Your task to perform on an android device: toggle javascript in the chrome app Image 0: 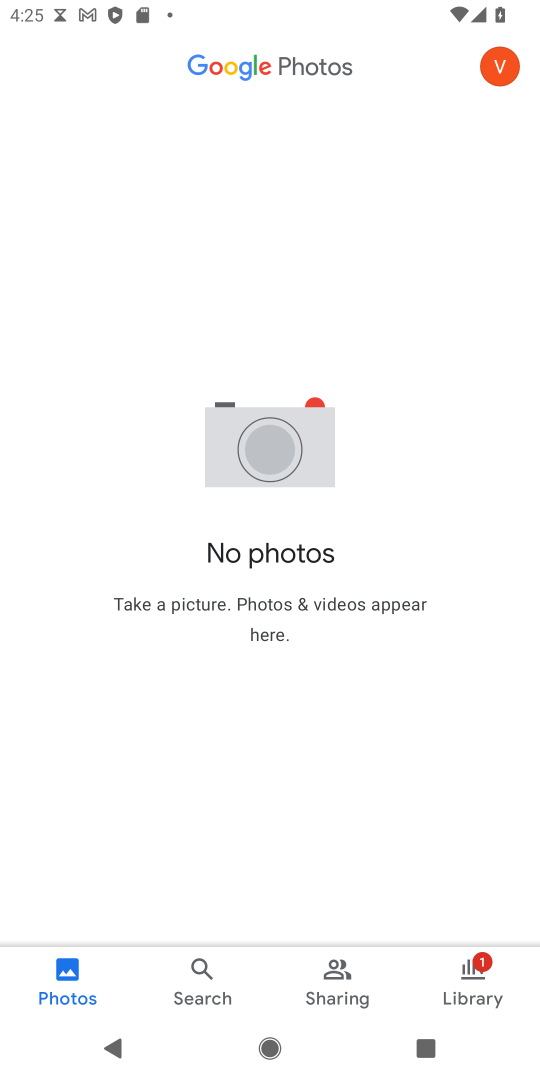
Step 0: press back button
Your task to perform on an android device: toggle javascript in the chrome app Image 1: 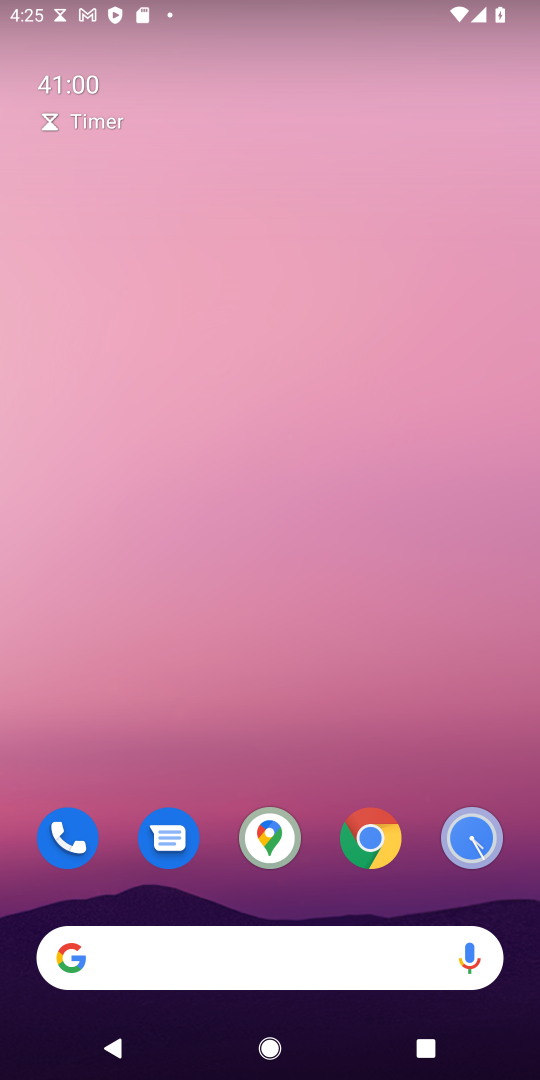
Step 1: press home button
Your task to perform on an android device: toggle javascript in the chrome app Image 2: 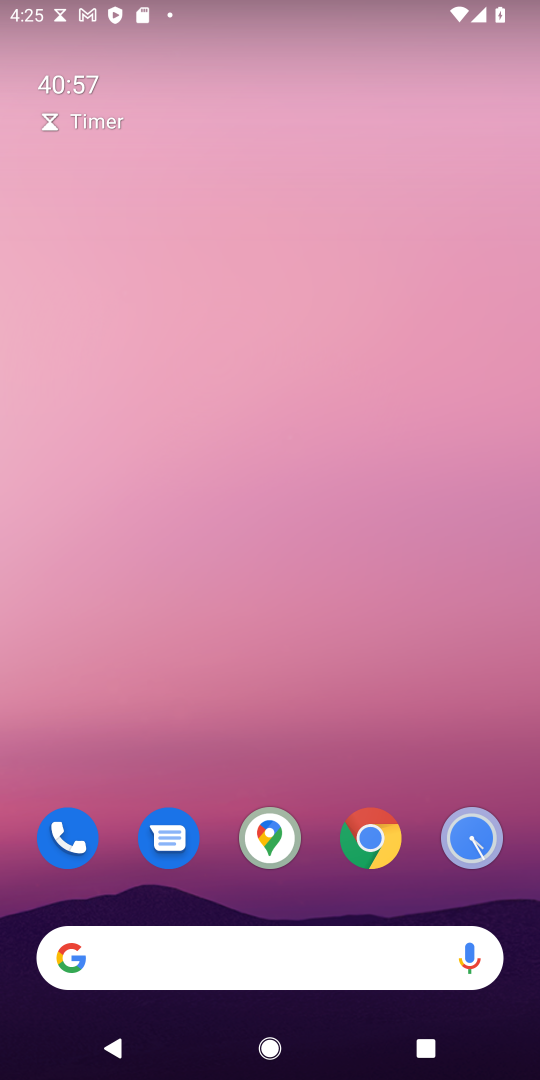
Step 2: click (380, 838)
Your task to perform on an android device: toggle javascript in the chrome app Image 3: 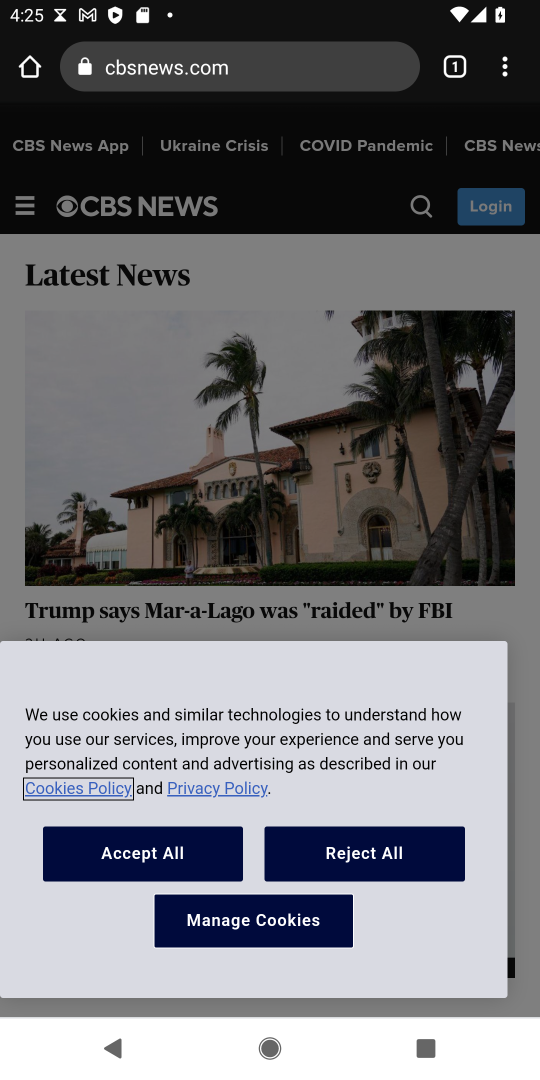
Step 3: click (520, 77)
Your task to perform on an android device: toggle javascript in the chrome app Image 4: 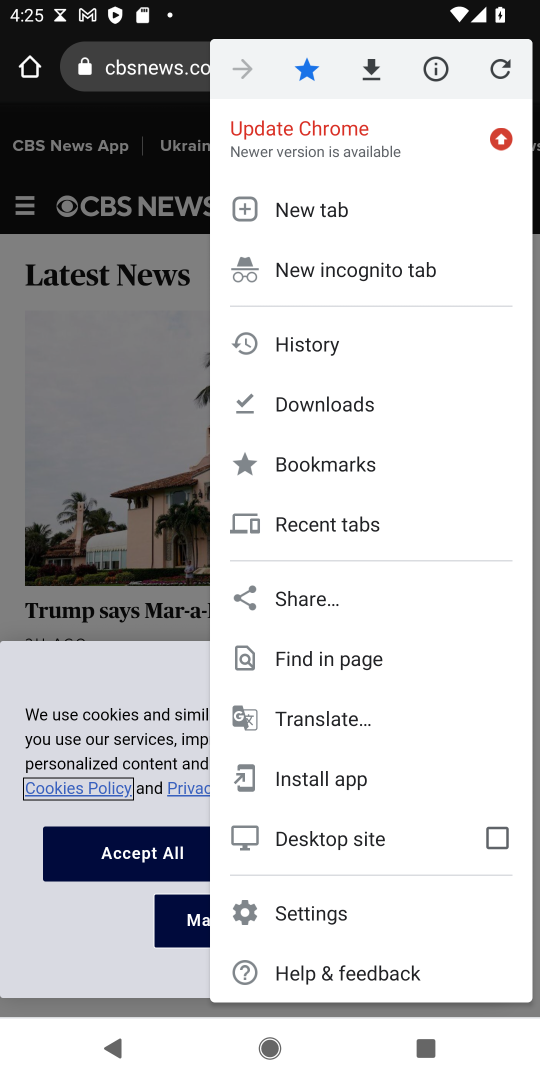
Step 4: click (357, 909)
Your task to perform on an android device: toggle javascript in the chrome app Image 5: 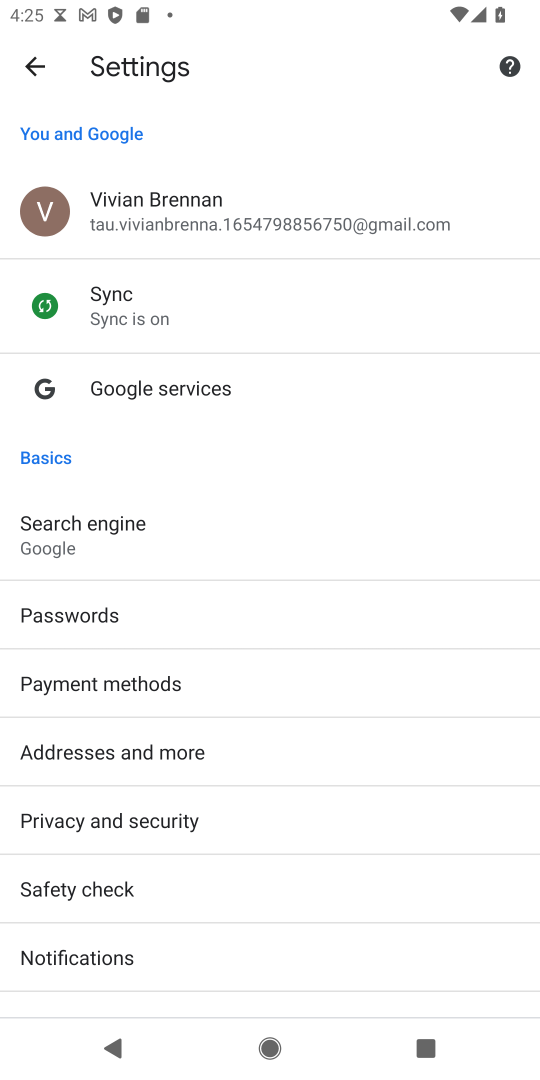
Step 5: drag from (313, 997) to (205, 431)
Your task to perform on an android device: toggle javascript in the chrome app Image 6: 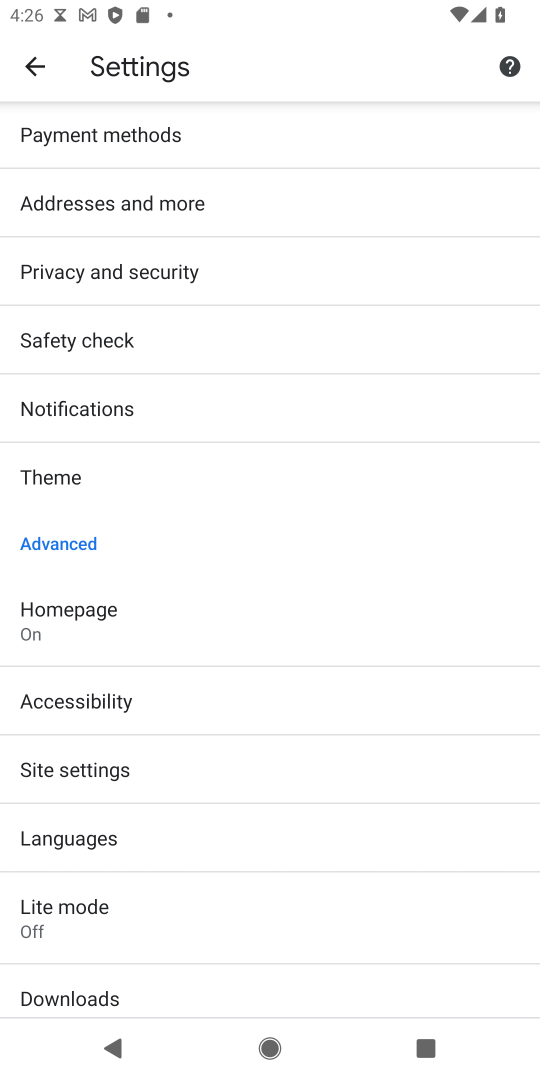
Step 6: click (227, 784)
Your task to perform on an android device: toggle javascript in the chrome app Image 7: 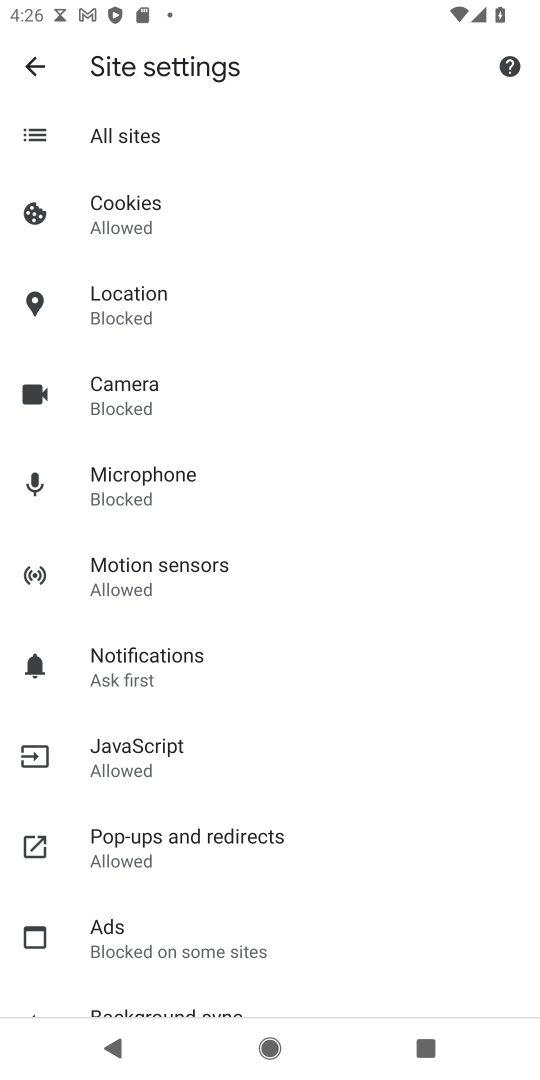
Step 7: click (217, 769)
Your task to perform on an android device: toggle javascript in the chrome app Image 8: 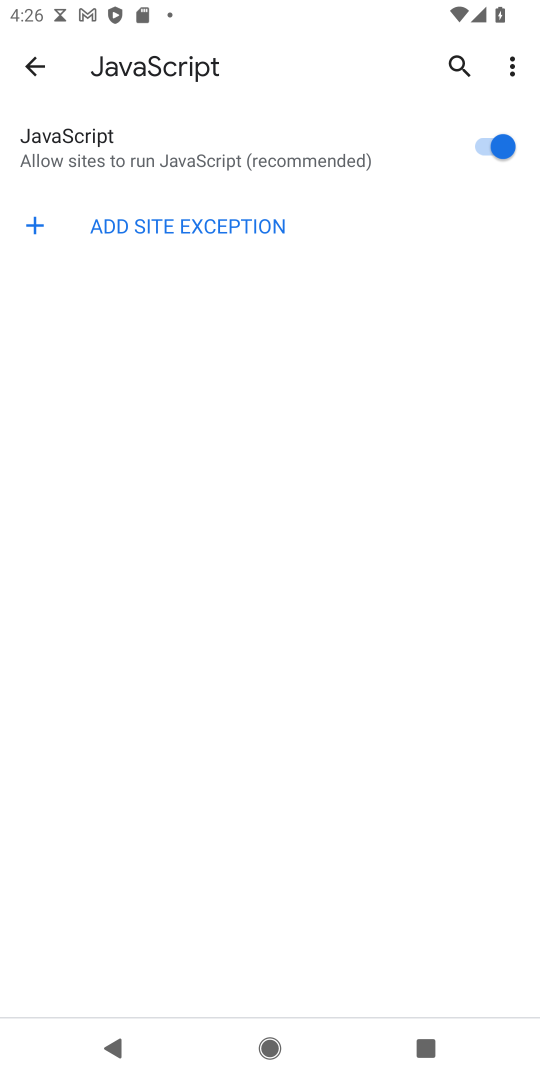
Step 8: click (496, 150)
Your task to perform on an android device: toggle javascript in the chrome app Image 9: 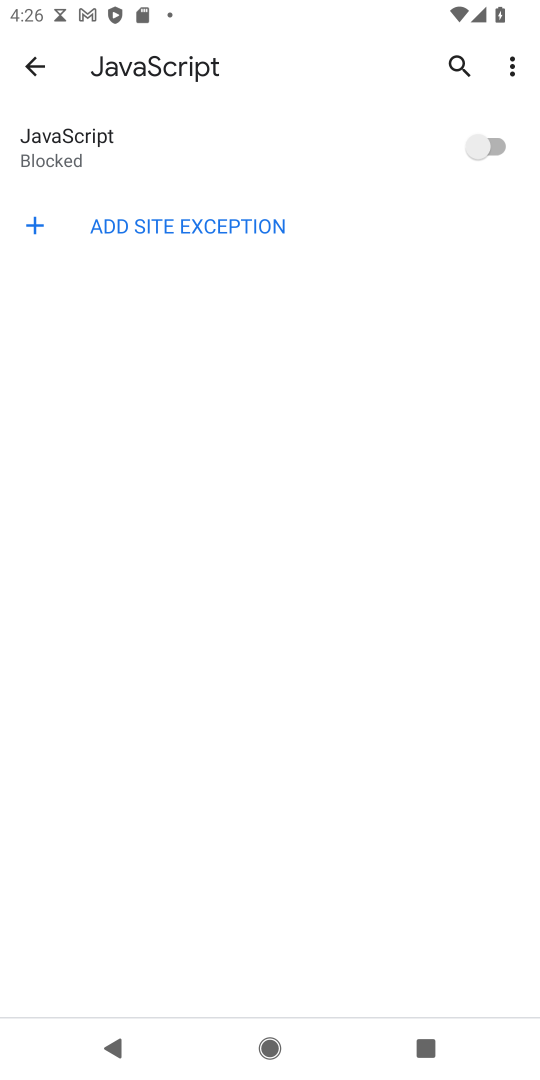
Step 9: task complete